Your task to perform on an android device: delete a single message in the gmail app Image 0: 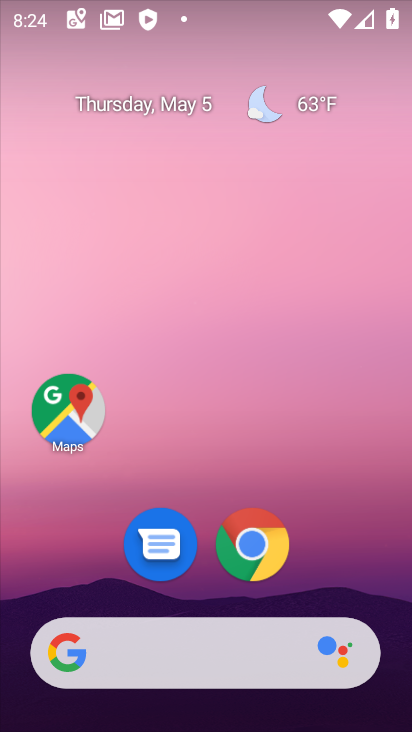
Step 0: drag from (396, 641) to (232, 114)
Your task to perform on an android device: delete a single message in the gmail app Image 1: 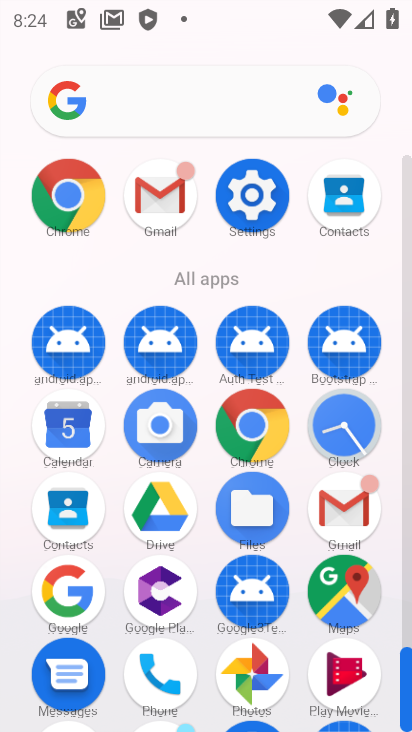
Step 1: click (316, 514)
Your task to perform on an android device: delete a single message in the gmail app Image 2: 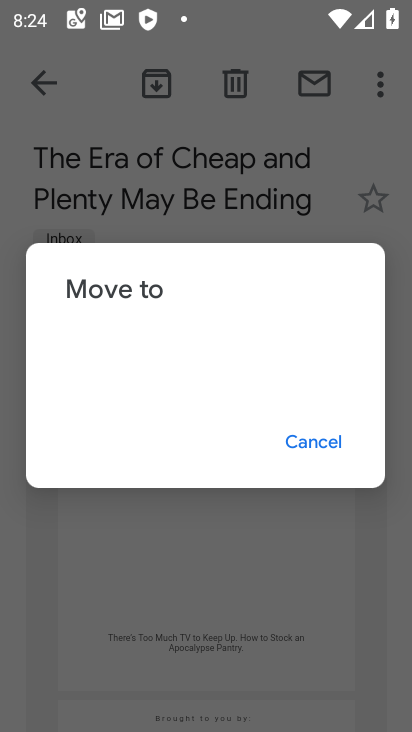
Step 2: click (336, 440)
Your task to perform on an android device: delete a single message in the gmail app Image 3: 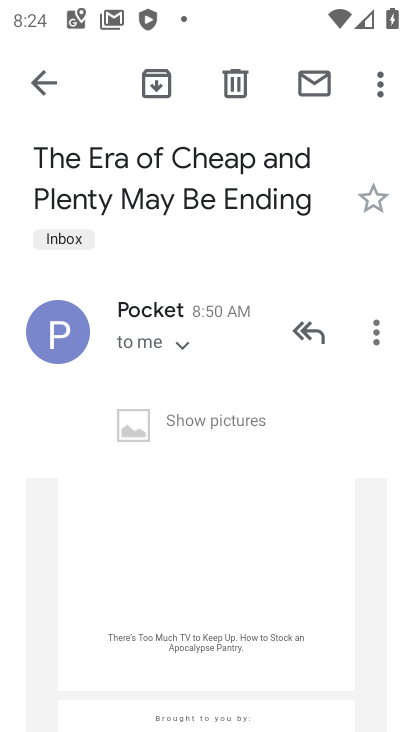
Step 3: click (45, 85)
Your task to perform on an android device: delete a single message in the gmail app Image 4: 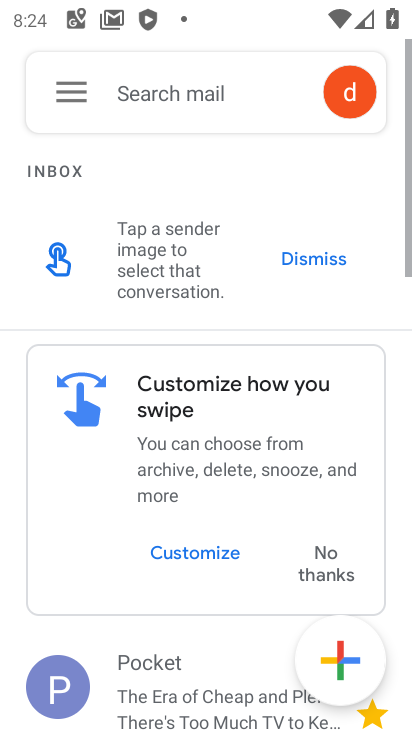
Step 4: click (192, 660)
Your task to perform on an android device: delete a single message in the gmail app Image 5: 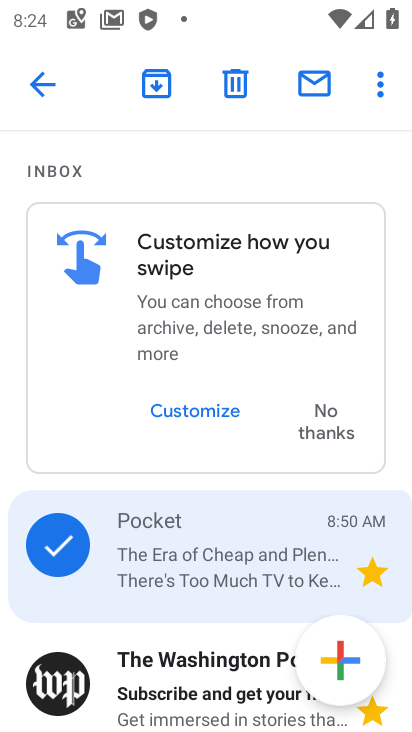
Step 5: click (242, 75)
Your task to perform on an android device: delete a single message in the gmail app Image 6: 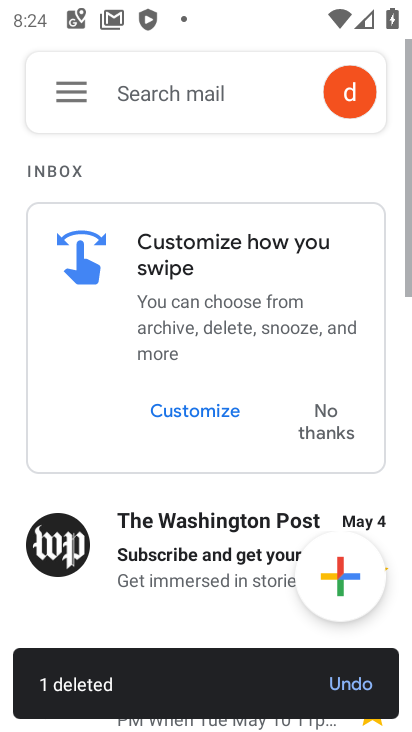
Step 6: task complete